Your task to perform on an android device: clear history in the chrome app Image 0: 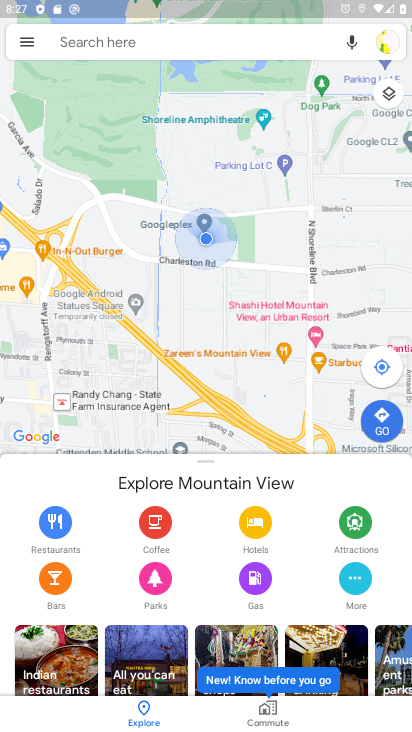
Step 0: click (24, 33)
Your task to perform on an android device: clear history in the chrome app Image 1: 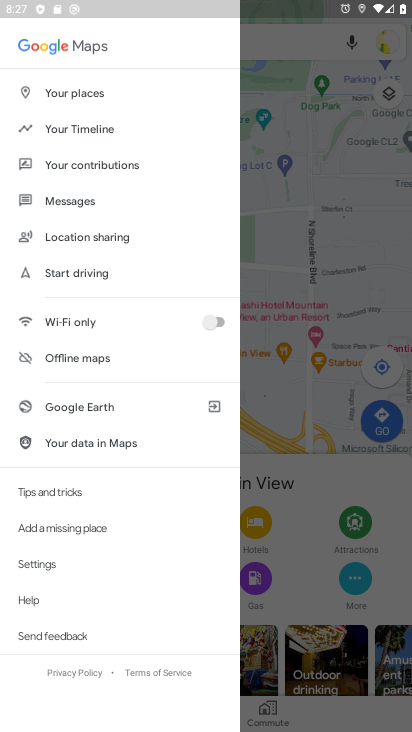
Step 1: click (263, 205)
Your task to perform on an android device: clear history in the chrome app Image 2: 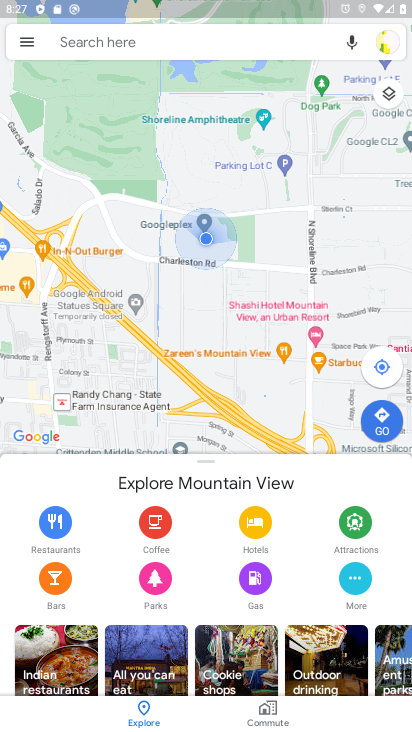
Step 2: press home button
Your task to perform on an android device: clear history in the chrome app Image 3: 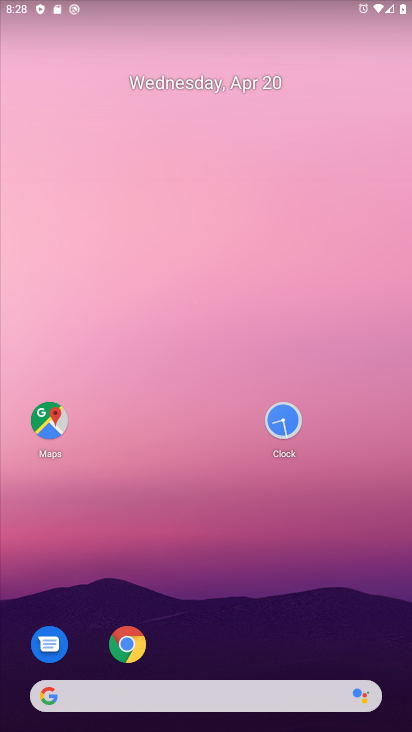
Step 3: drag from (157, 621) to (192, 86)
Your task to perform on an android device: clear history in the chrome app Image 4: 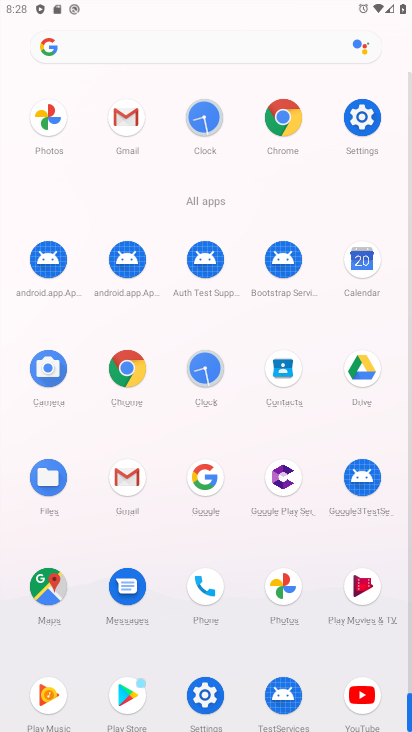
Step 4: click (132, 371)
Your task to perform on an android device: clear history in the chrome app Image 5: 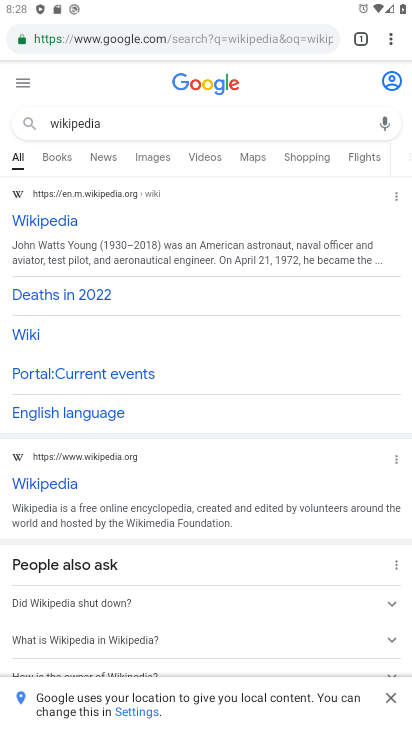
Step 5: drag from (393, 36) to (229, 214)
Your task to perform on an android device: clear history in the chrome app Image 6: 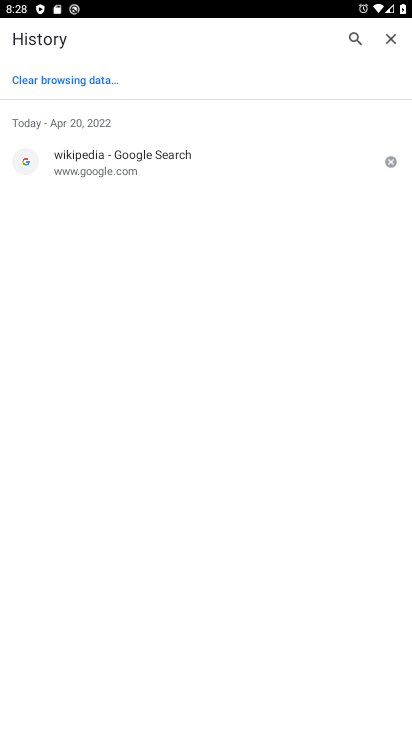
Step 6: click (76, 78)
Your task to perform on an android device: clear history in the chrome app Image 7: 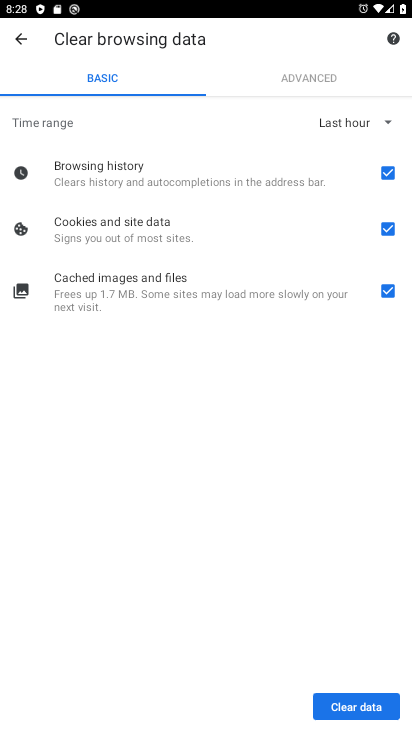
Step 7: click (385, 706)
Your task to perform on an android device: clear history in the chrome app Image 8: 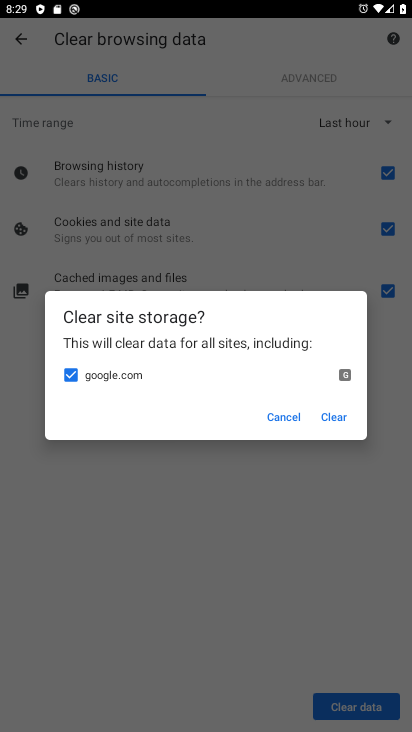
Step 8: click (335, 418)
Your task to perform on an android device: clear history in the chrome app Image 9: 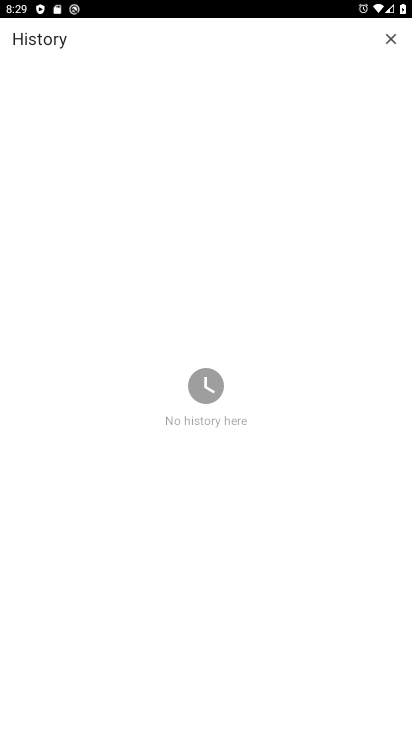
Step 9: task complete